Your task to perform on an android device: toggle translation in the chrome app Image 0: 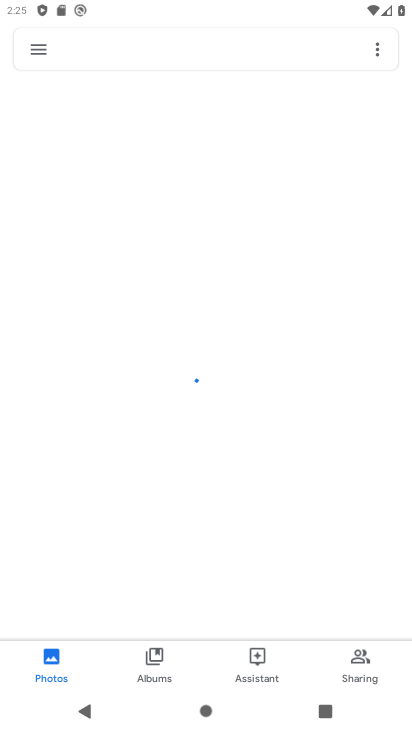
Step 0: press home button
Your task to perform on an android device: toggle translation in the chrome app Image 1: 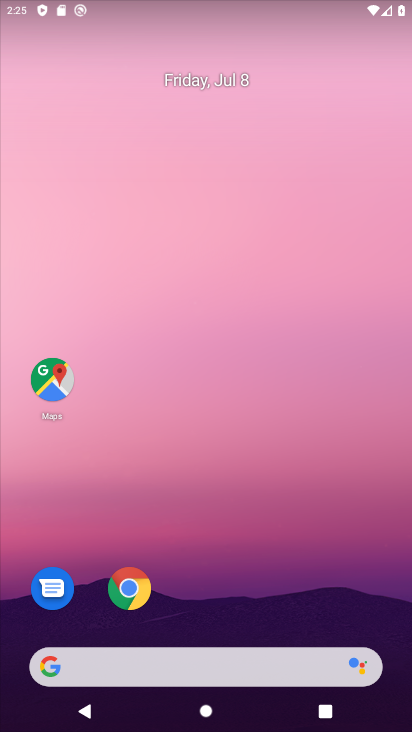
Step 1: click (126, 585)
Your task to perform on an android device: toggle translation in the chrome app Image 2: 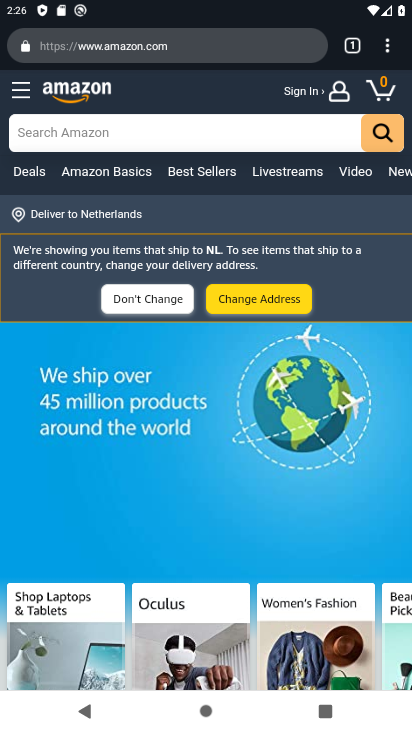
Step 2: click (386, 42)
Your task to perform on an android device: toggle translation in the chrome app Image 3: 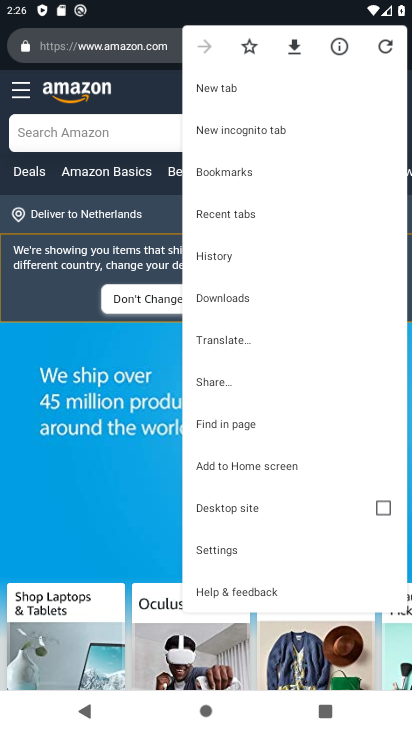
Step 3: click (230, 547)
Your task to perform on an android device: toggle translation in the chrome app Image 4: 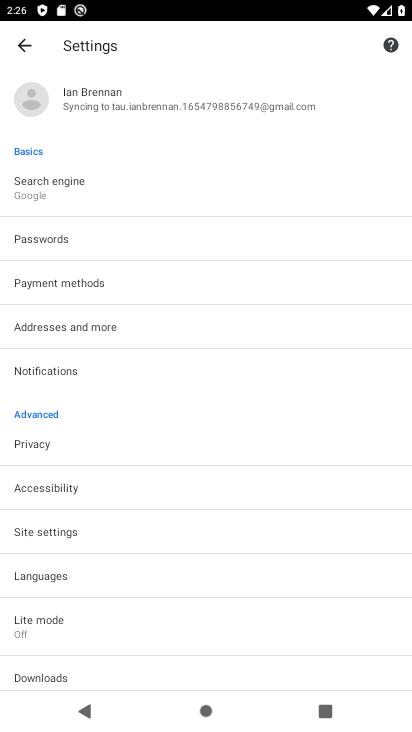
Step 4: click (69, 576)
Your task to perform on an android device: toggle translation in the chrome app Image 5: 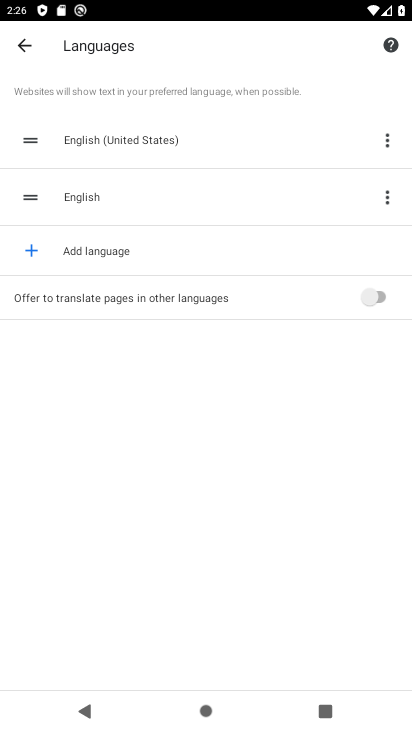
Step 5: click (384, 287)
Your task to perform on an android device: toggle translation in the chrome app Image 6: 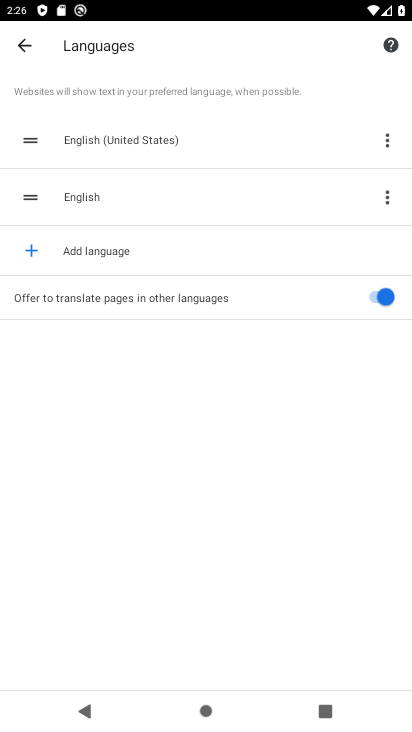
Step 6: task complete